Your task to perform on an android device: change timer sound Image 0: 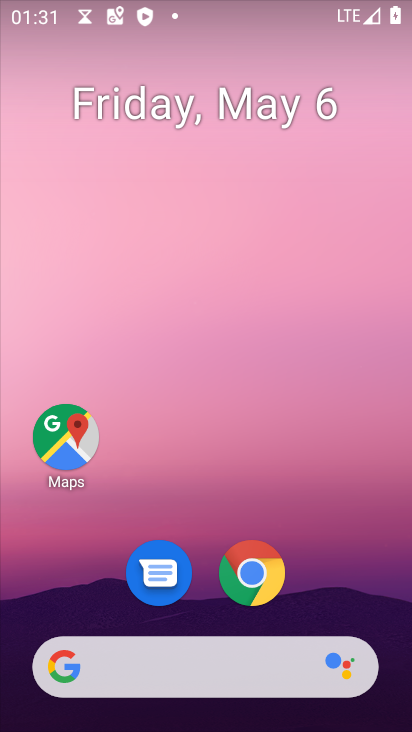
Step 0: drag from (334, 624) to (247, 295)
Your task to perform on an android device: change timer sound Image 1: 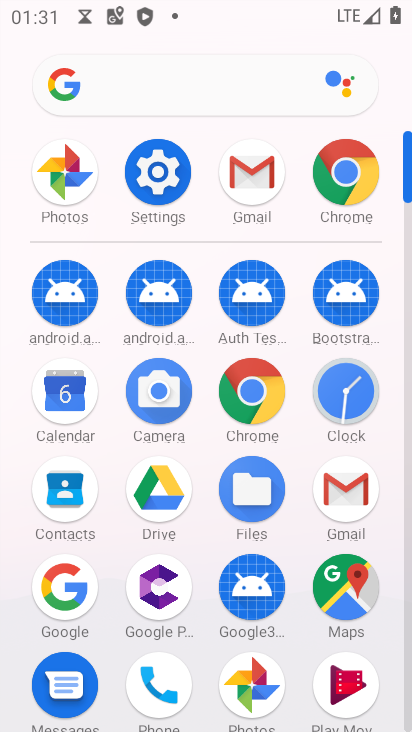
Step 1: click (339, 391)
Your task to perform on an android device: change timer sound Image 2: 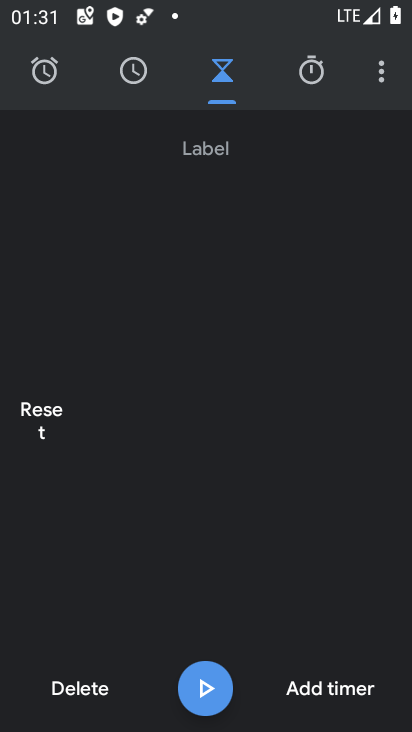
Step 2: click (375, 74)
Your task to perform on an android device: change timer sound Image 3: 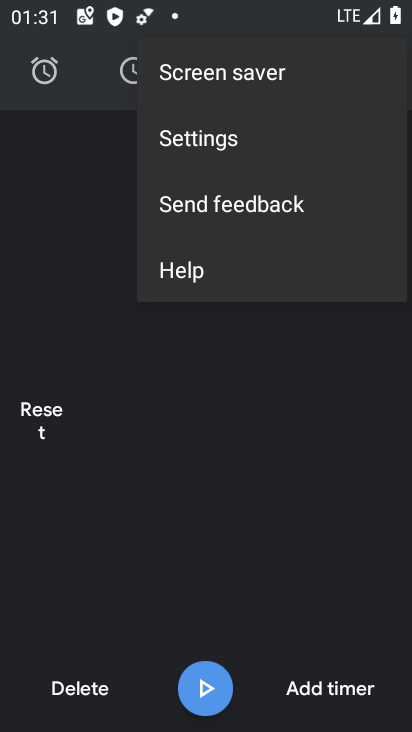
Step 3: click (187, 130)
Your task to perform on an android device: change timer sound Image 4: 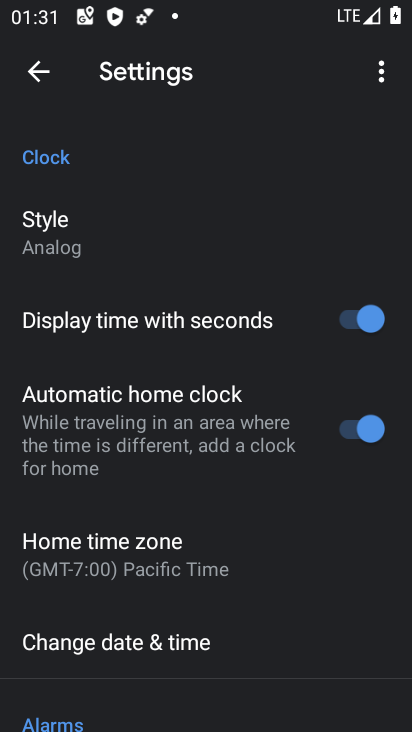
Step 4: drag from (215, 638) to (252, 289)
Your task to perform on an android device: change timer sound Image 5: 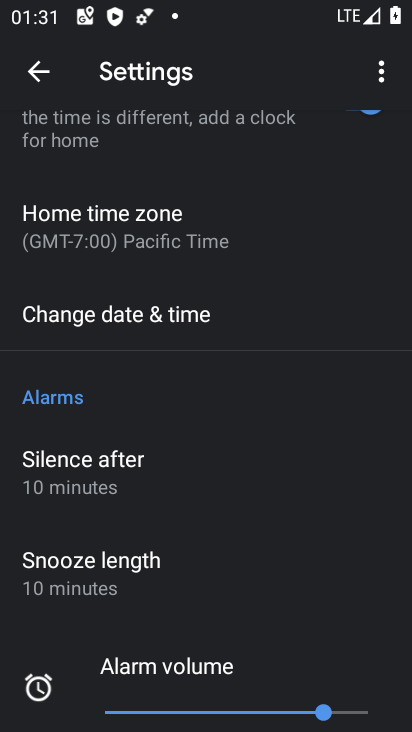
Step 5: drag from (143, 659) to (277, 244)
Your task to perform on an android device: change timer sound Image 6: 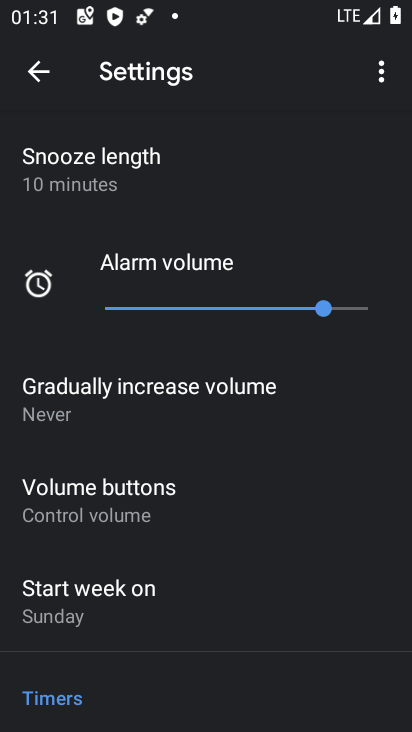
Step 6: drag from (140, 643) to (259, 323)
Your task to perform on an android device: change timer sound Image 7: 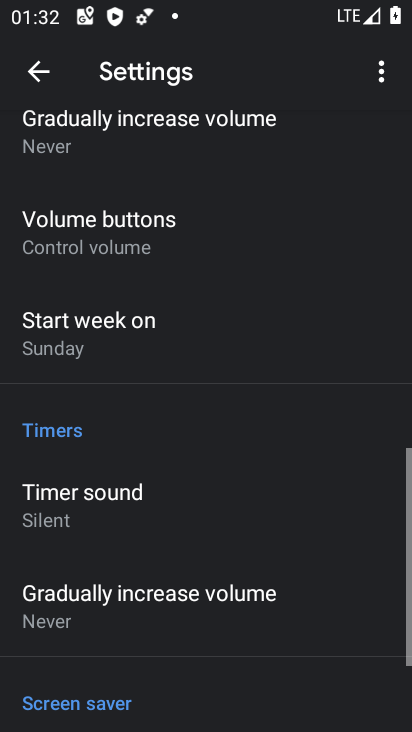
Step 7: click (70, 519)
Your task to perform on an android device: change timer sound Image 8: 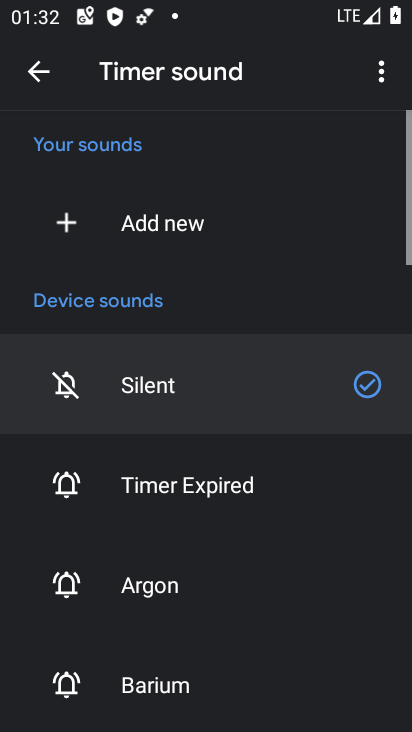
Step 8: drag from (180, 659) to (291, 257)
Your task to perform on an android device: change timer sound Image 9: 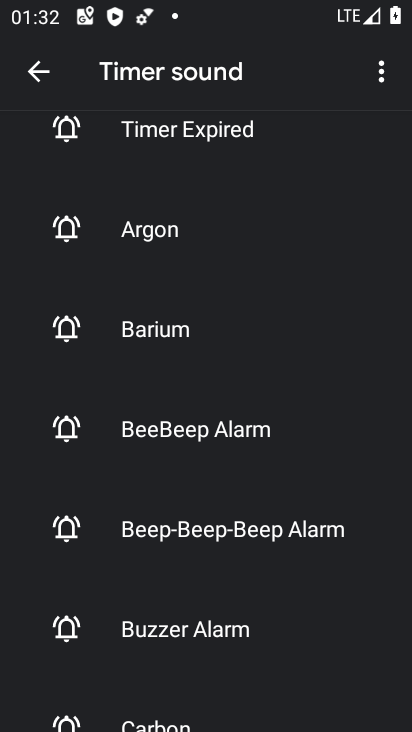
Step 9: click (131, 643)
Your task to perform on an android device: change timer sound Image 10: 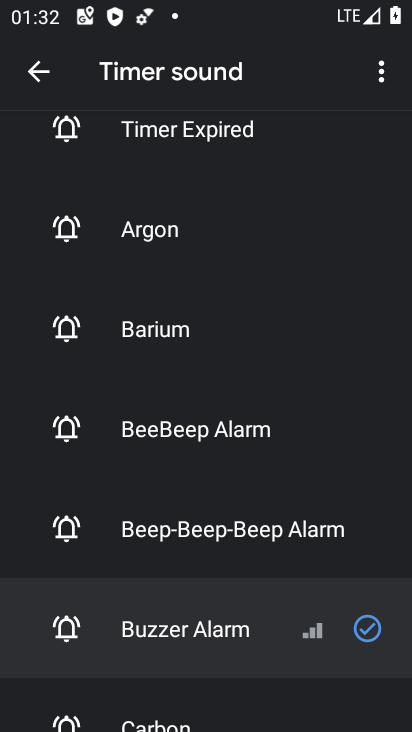
Step 10: task complete